Your task to perform on an android device: Open accessibility settings Image 0: 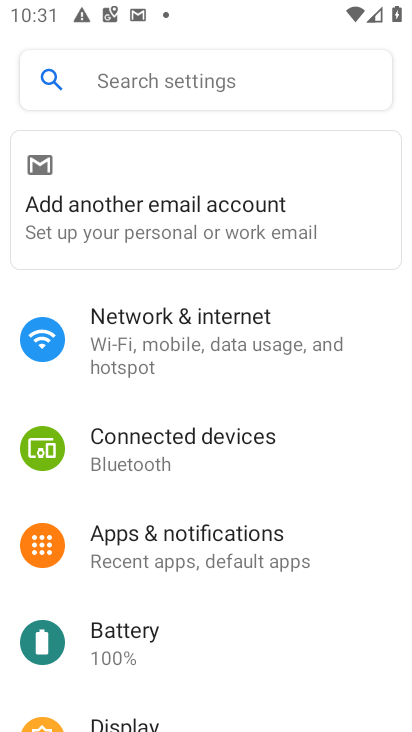
Step 0: drag from (194, 631) to (261, 164)
Your task to perform on an android device: Open accessibility settings Image 1: 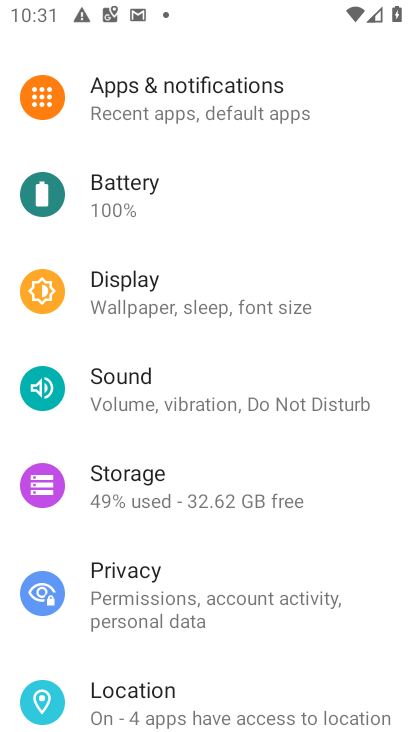
Step 1: drag from (222, 690) to (261, 216)
Your task to perform on an android device: Open accessibility settings Image 2: 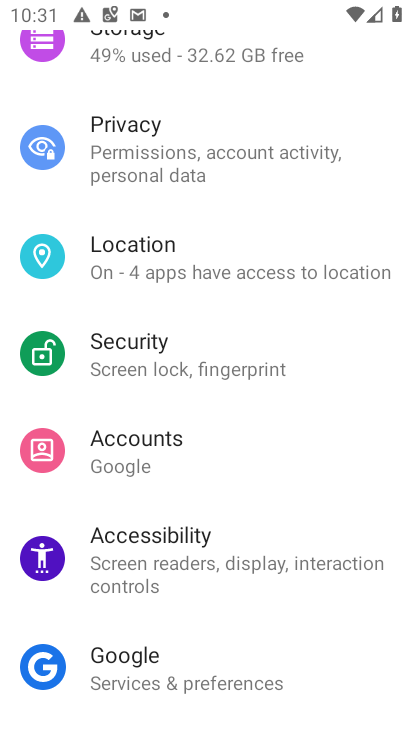
Step 2: click (196, 549)
Your task to perform on an android device: Open accessibility settings Image 3: 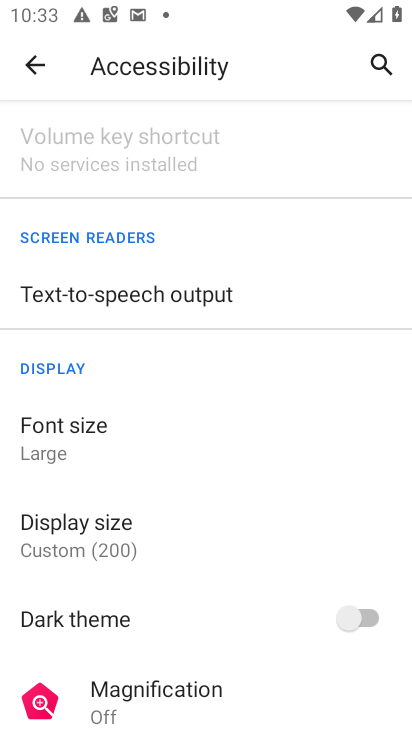
Step 3: task complete